Your task to perform on an android device: turn on notifications settings in the gmail app Image 0: 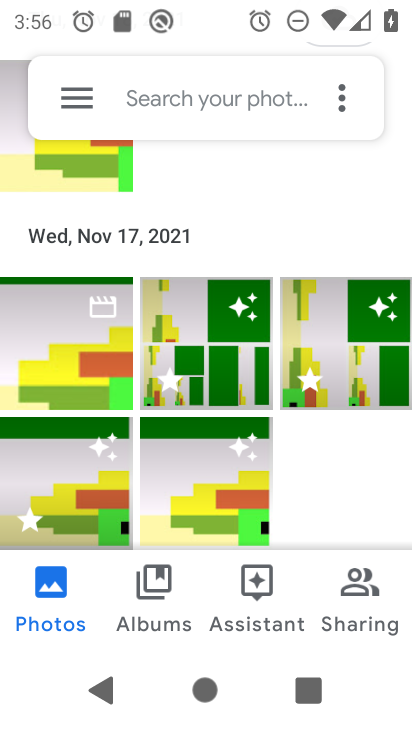
Step 0: press home button
Your task to perform on an android device: turn on notifications settings in the gmail app Image 1: 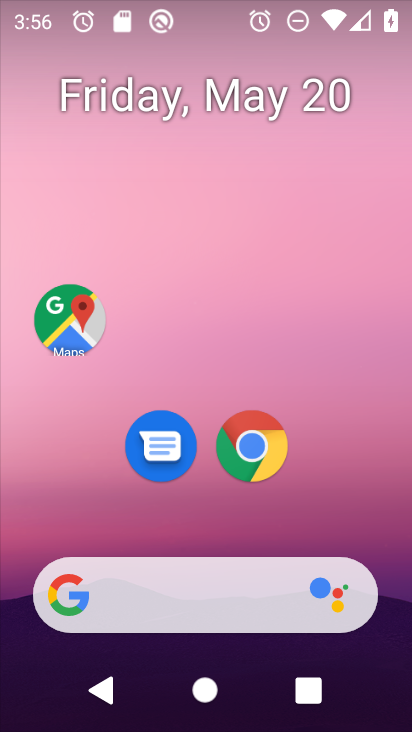
Step 1: drag from (348, 556) to (365, 32)
Your task to perform on an android device: turn on notifications settings in the gmail app Image 2: 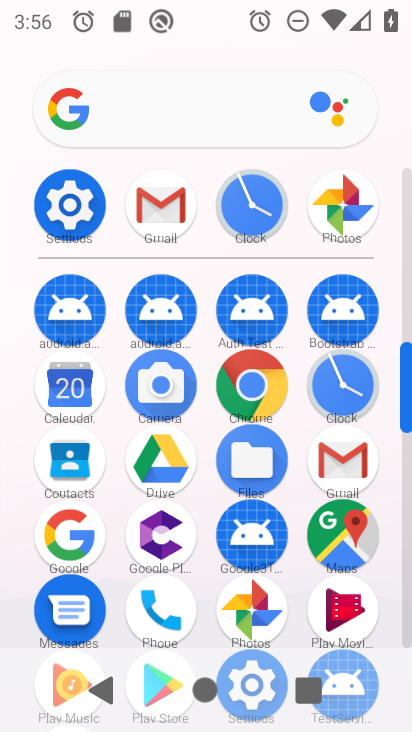
Step 2: click (164, 200)
Your task to perform on an android device: turn on notifications settings in the gmail app Image 3: 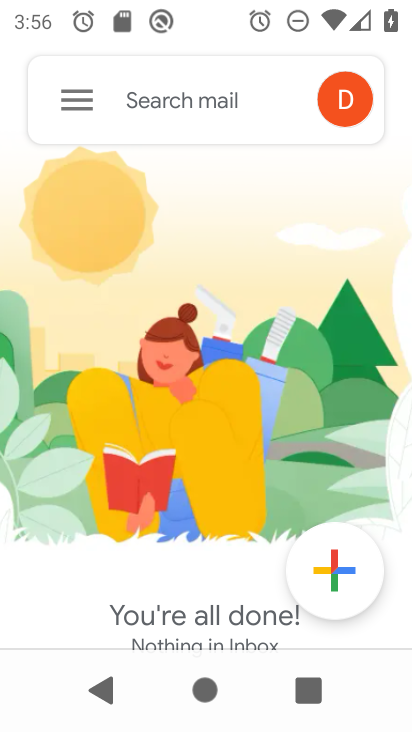
Step 3: click (70, 99)
Your task to perform on an android device: turn on notifications settings in the gmail app Image 4: 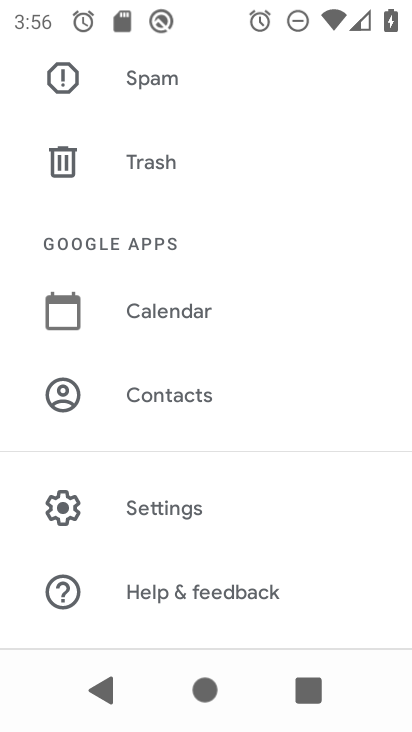
Step 4: click (186, 509)
Your task to perform on an android device: turn on notifications settings in the gmail app Image 5: 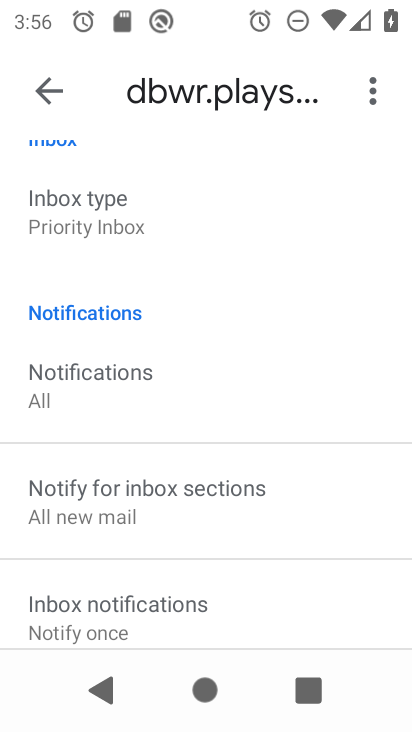
Step 5: click (42, 89)
Your task to perform on an android device: turn on notifications settings in the gmail app Image 6: 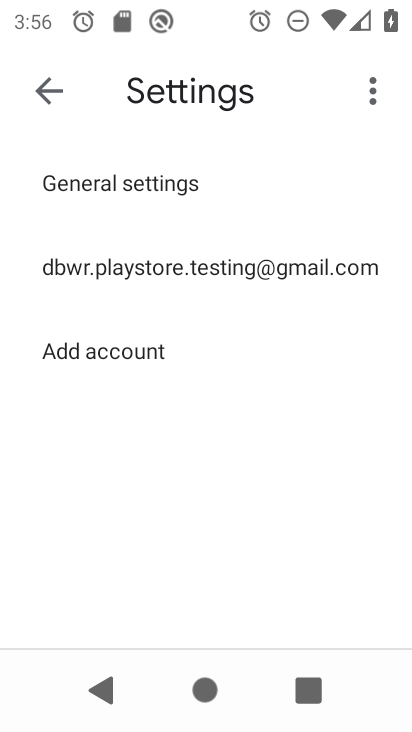
Step 6: click (89, 184)
Your task to perform on an android device: turn on notifications settings in the gmail app Image 7: 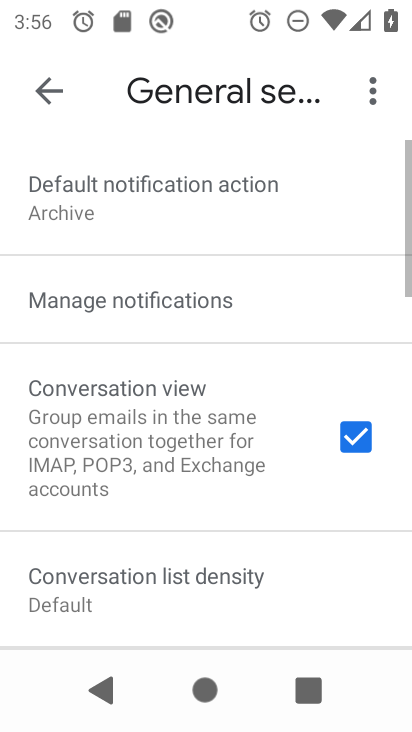
Step 7: click (112, 304)
Your task to perform on an android device: turn on notifications settings in the gmail app Image 8: 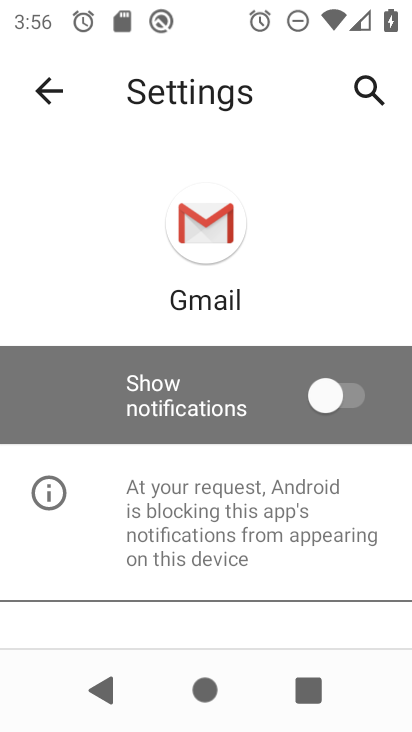
Step 8: click (335, 392)
Your task to perform on an android device: turn on notifications settings in the gmail app Image 9: 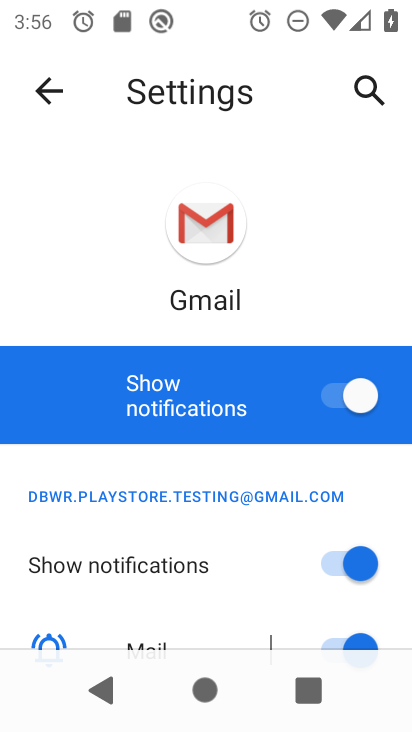
Step 9: task complete